Your task to perform on an android device: Clear the shopping cart on walmart.com. Search for "logitech g pro" on walmart.com, select the first entry, and add it to the cart. Image 0: 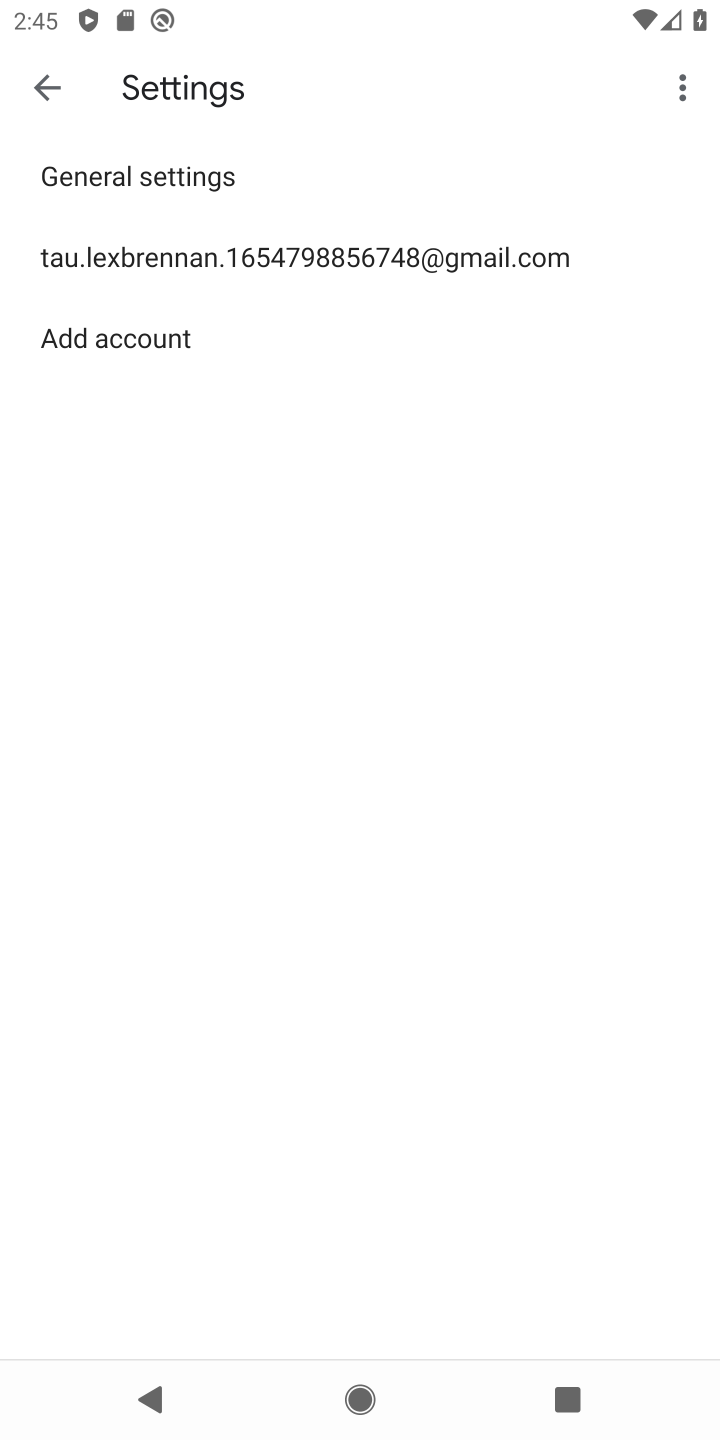
Step 0: press home button
Your task to perform on an android device: Clear the shopping cart on walmart.com. Search for "logitech g pro" on walmart.com, select the first entry, and add it to the cart. Image 1: 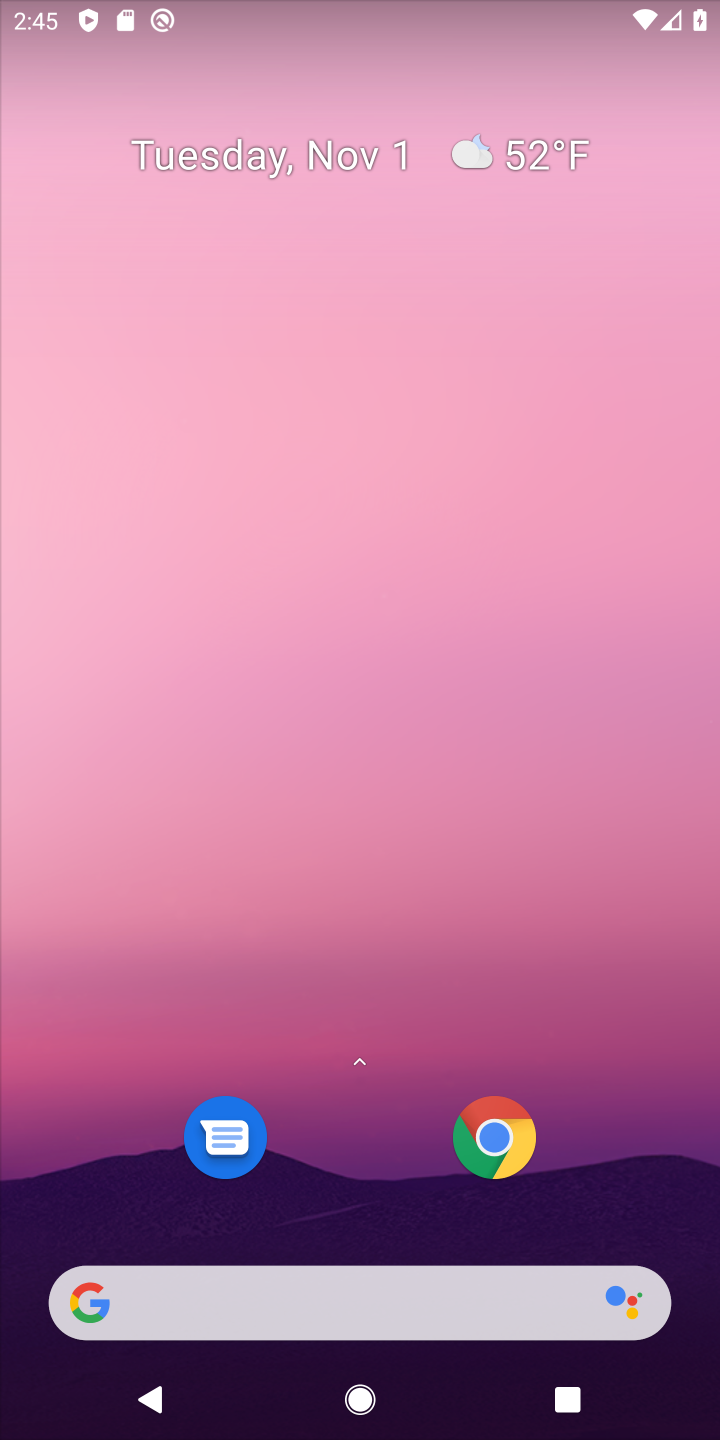
Step 1: click (376, 1306)
Your task to perform on an android device: Clear the shopping cart on walmart.com. Search for "logitech g pro" on walmart.com, select the first entry, and add it to the cart. Image 2: 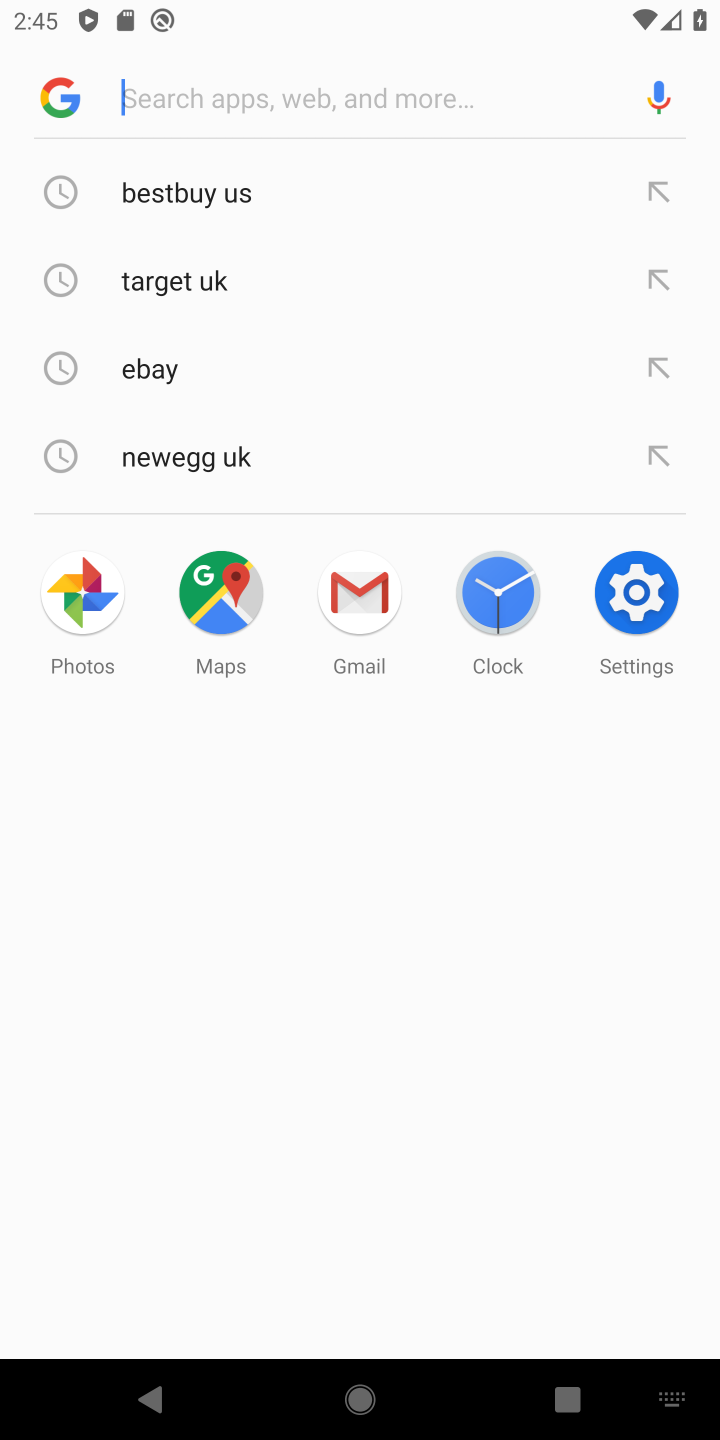
Step 2: type "walmart"
Your task to perform on an android device: Clear the shopping cart on walmart.com. Search for "logitech g pro" on walmart.com, select the first entry, and add it to the cart. Image 3: 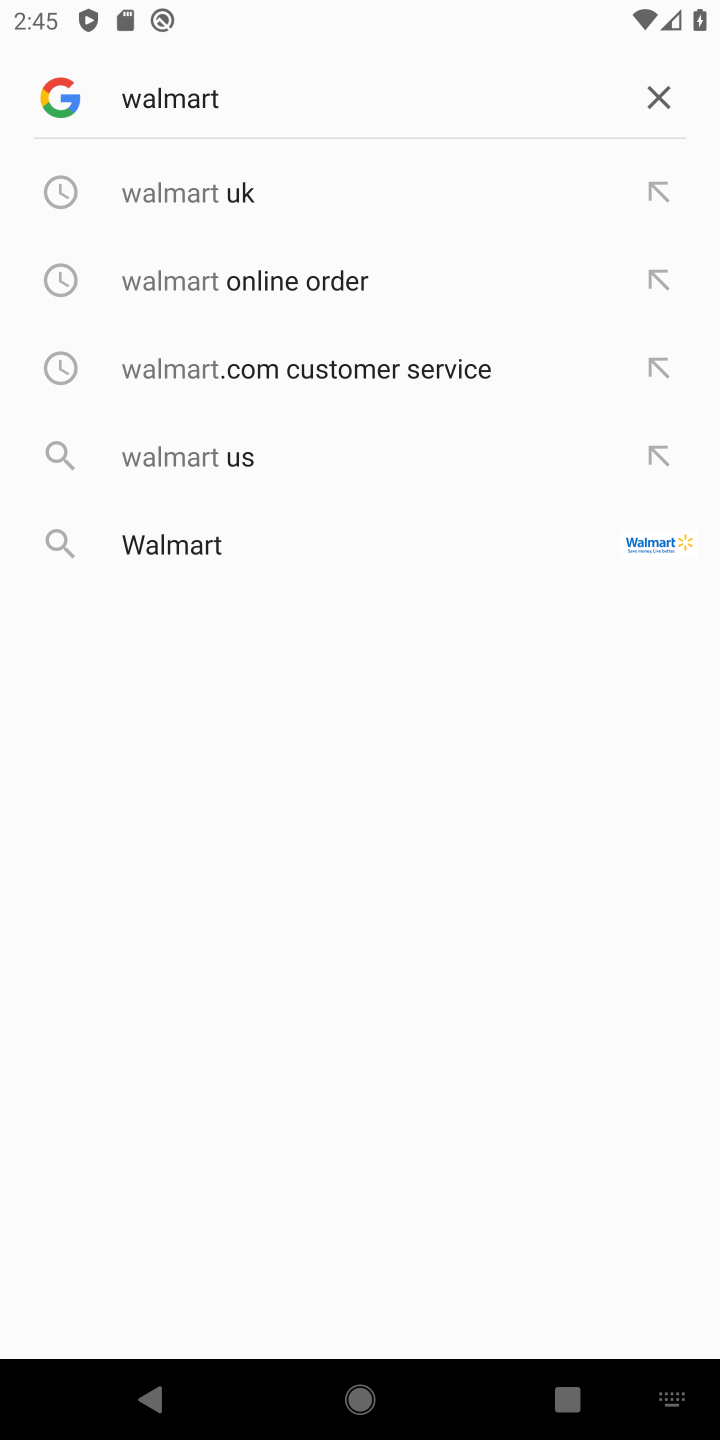
Step 3: click (383, 208)
Your task to perform on an android device: Clear the shopping cart on walmart.com. Search for "logitech g pro" on walmart.com, select the first entry, and add it to the cart. Image 4: 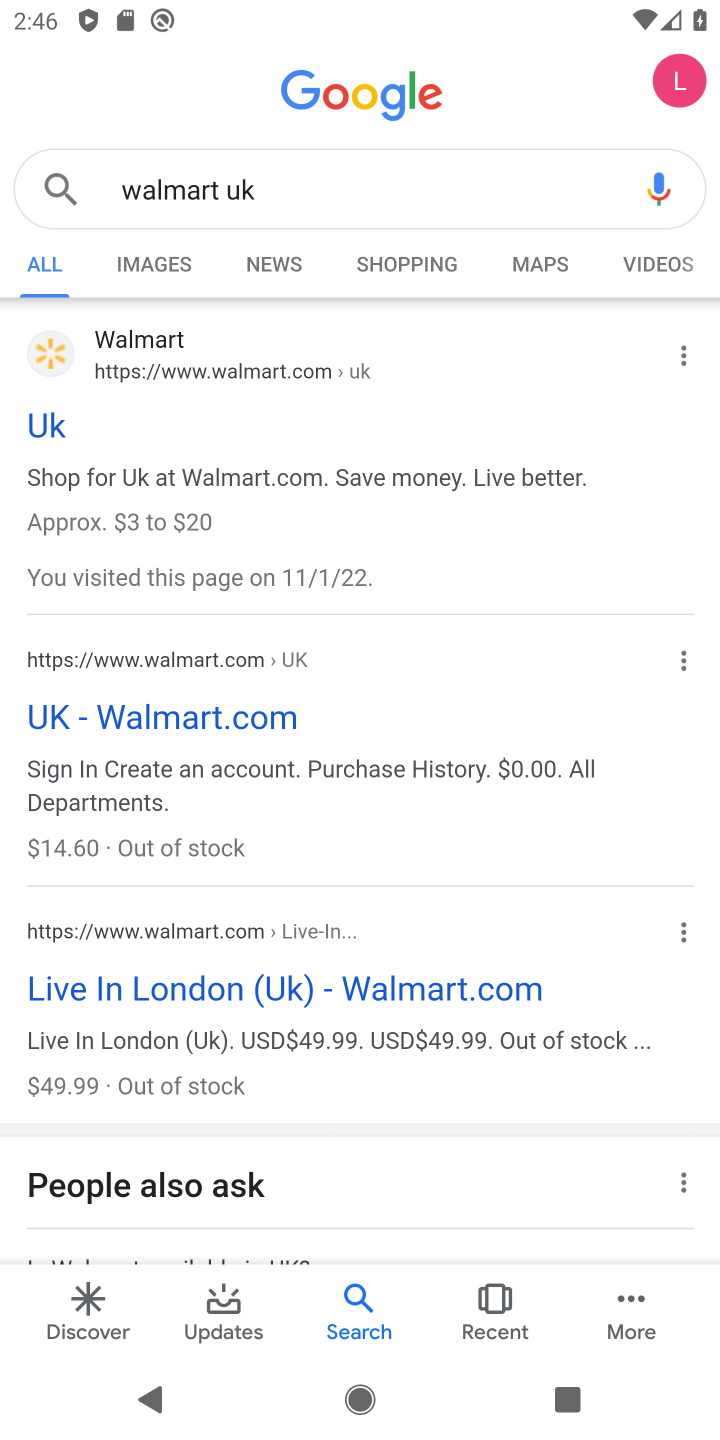
Step 4: click (124, 324)
Your task to perform on an android device: Clear the shopping cart on walmart.com. Search for "logitech g pro" on walmart.com, select the first entry, and add it to the cart. Image 5: 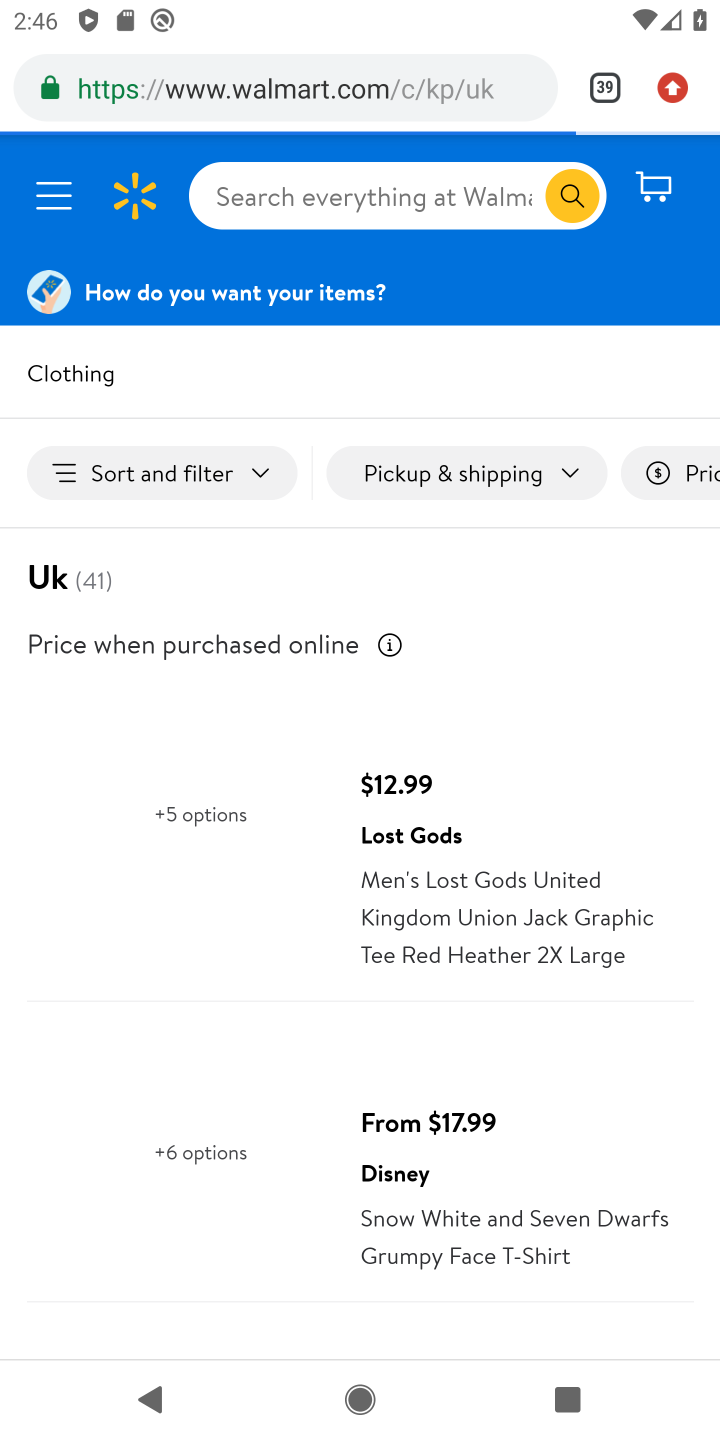
Step 5: click (270, 198)
Your task to perform on an android device: Clear the shopping cart on walmart.com. Search for "logitech g pro" on walmart.com, select the first entry, and add it to the cart. Image 6: 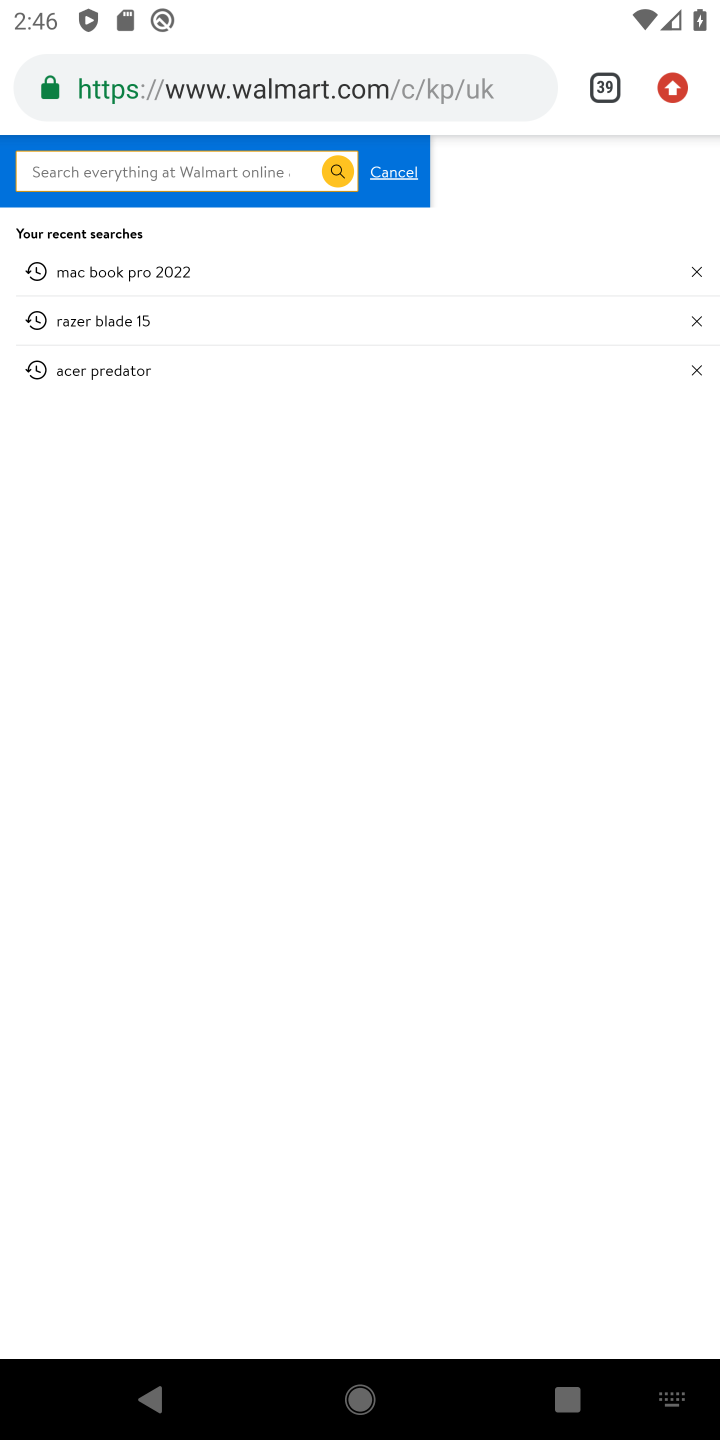
Step 6: type "logitech gpro"
Your task to perform on an android device: Clear the shopping cart on walmart.com. Search for "logitech g pro" on walmart.com, select the first entry, and add it to the cart. Image 7: 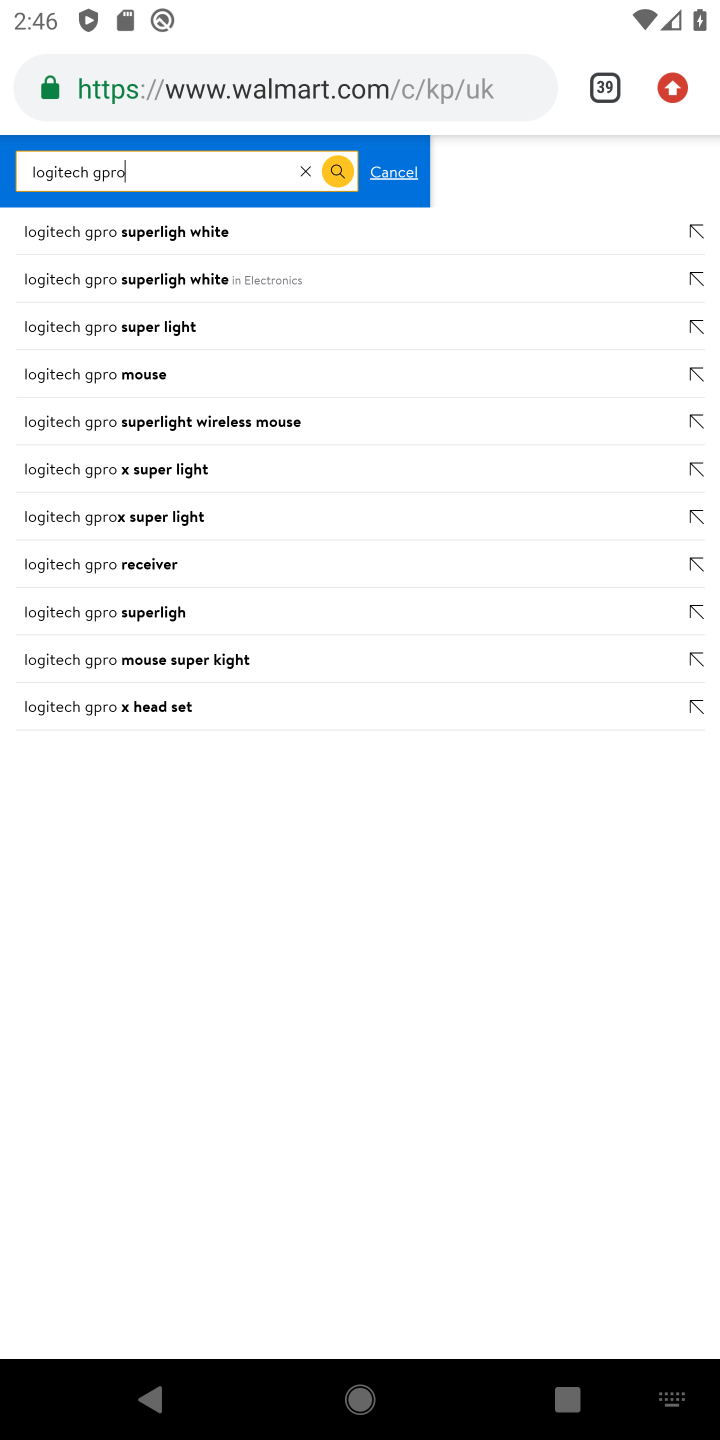
Step 7: click (84, 212)
Your task to perform on an android device: Clear the shopping cart on walmart.com. Search for "logitech g pro" on walmart.com, select the first entry, and add it to the cart. Image 8: 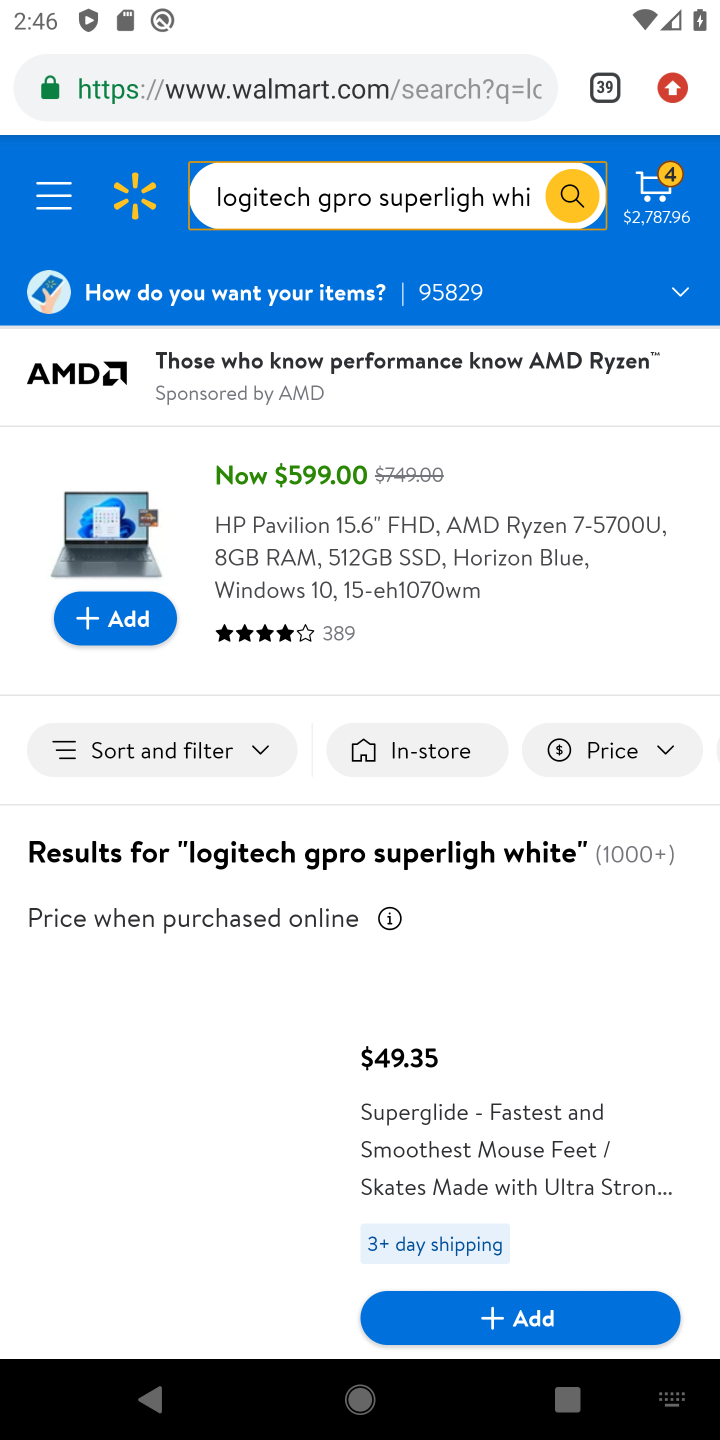
Step 8: click (612, 1311)
Your task to perform on an android device: Clear the shopping cart on walmart.com. Search for "logitech g pro" on walmart.com, select the first entry, and add it to the cart. Image 9: 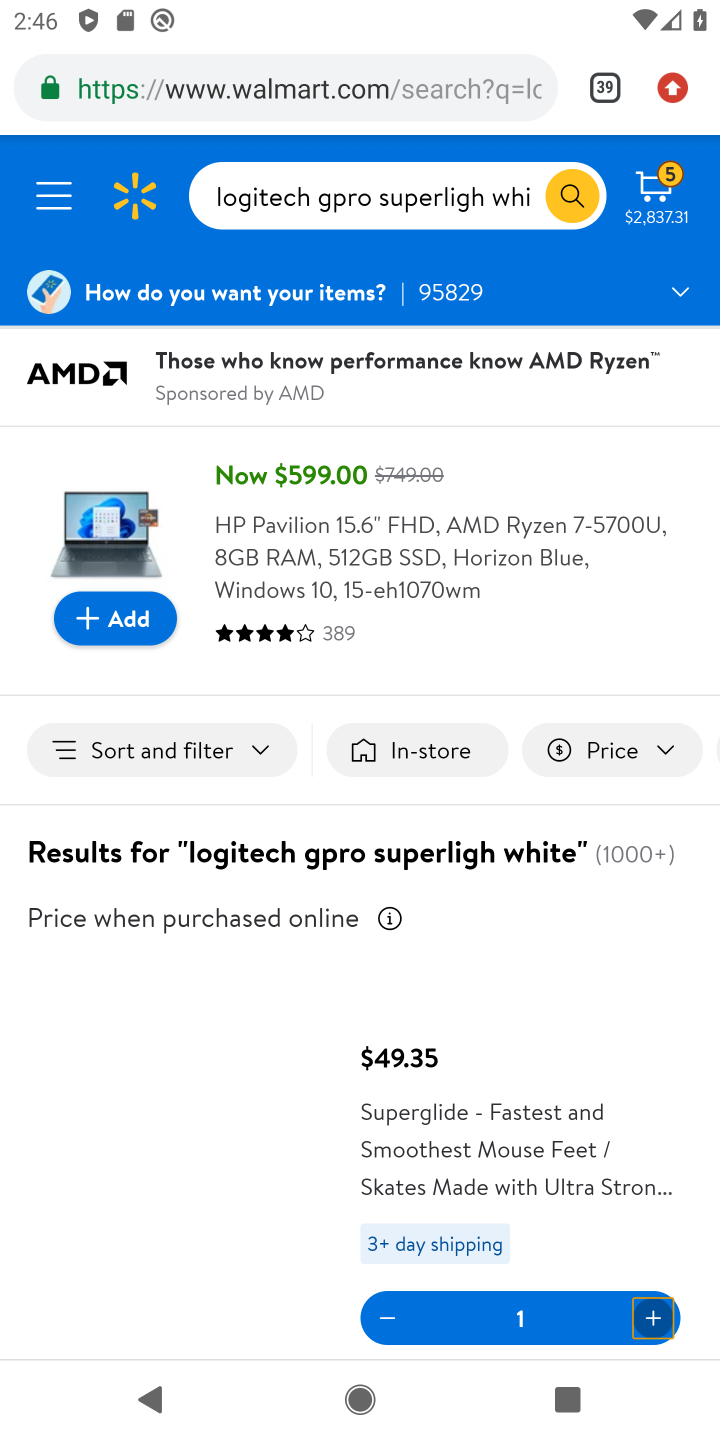
Step 9: task complete